Your task to perform on an android device: turn off notifications in google photos Image 0: 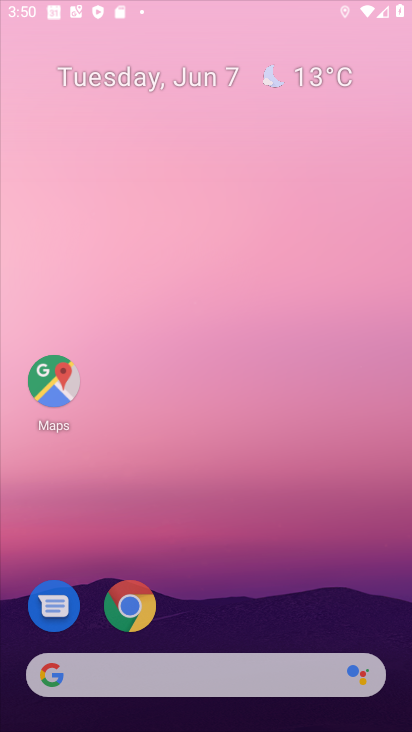
Step 0: press back button
Your task to perform on an android device: turn off notifications in google photos Image 1: 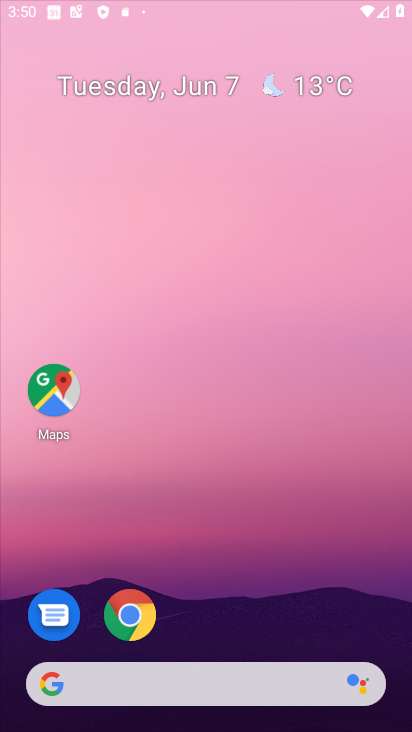
Step 1: drag from (211, 598) to (96, 4)
Your task to perform on an android device: turn off notifications in google photos Image 2: 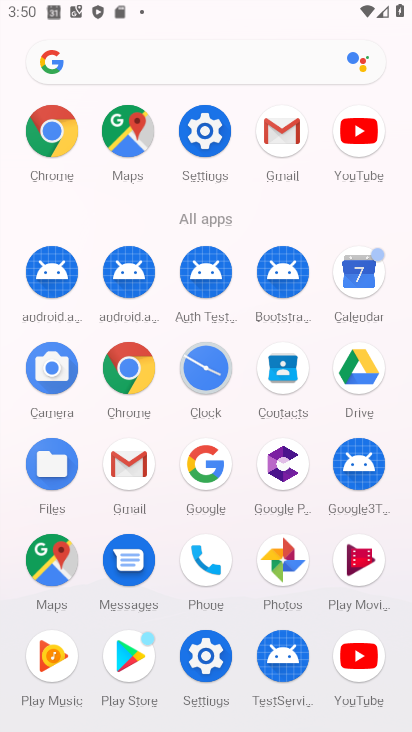
Step 2: drag from (221, 535) to (126, 6)
Your task to perform on an android device: turn off notifications in google photos Image 3: 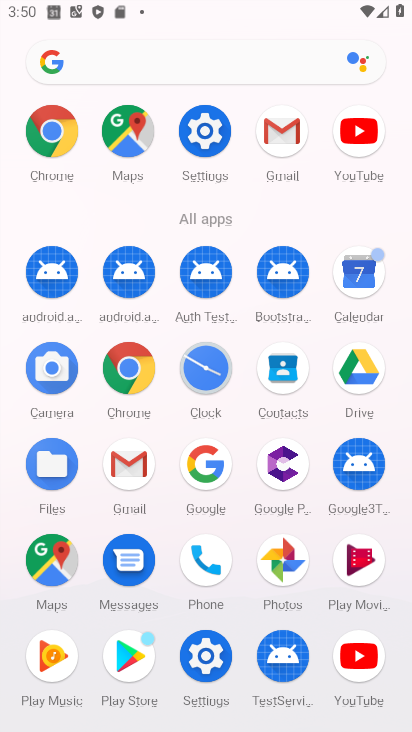
Step 3: click (281, 555)
Your task to perform on an android device: turn off notifications in google photos Image 4: 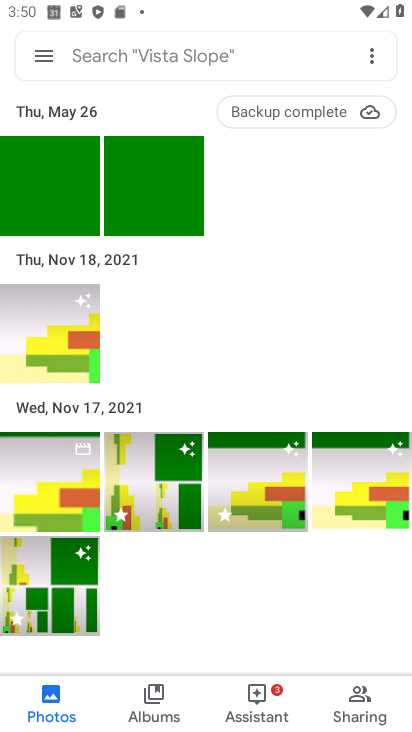
Step 4: click (49, 50)
Your task to perform on an android device: turn off notifications in google photos Image 5: 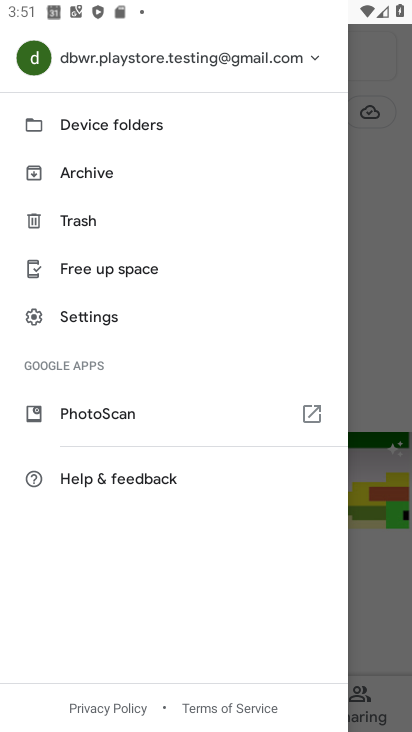
Step 5: click (86, 311)
Your task to perform on an android device: turn off notifications in google photos Image 6: 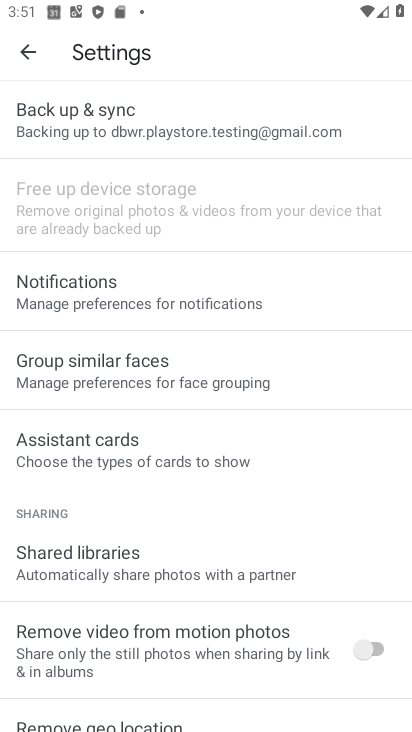
Step 6: click (60, 294)
Your task to perform on an android device: turn off notifications in google photos Image 7: 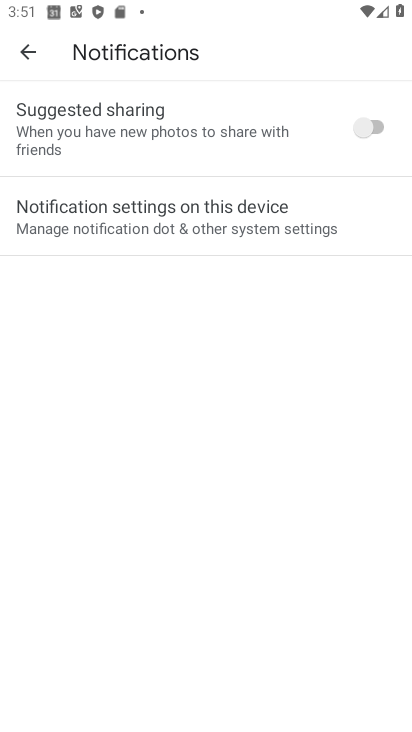
Step 7: click (125, 238)
Your task to perform on an android device: turn off notifications in google photos Image 8: 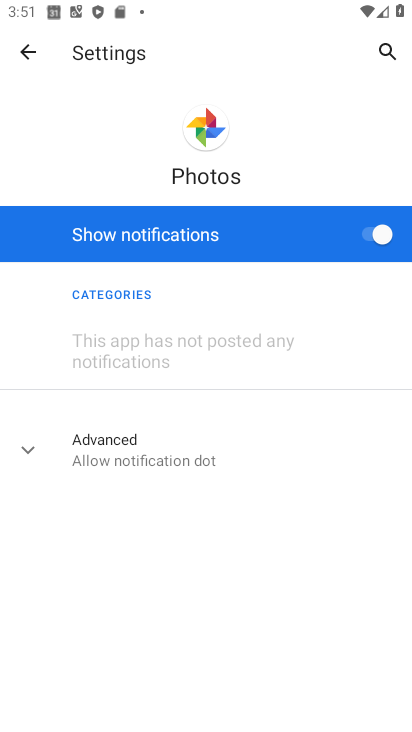
Step 8: click (370, 235)
Your task to perform on an android device: turn off notifications in google photos Image 9: 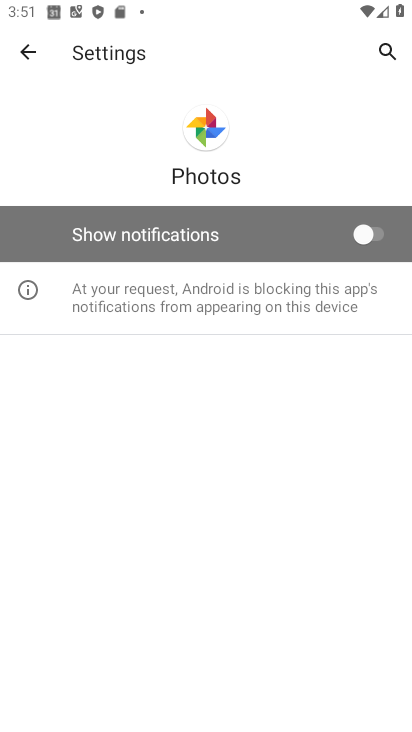
Step 9: task complete